Your task to perform on an android device: Go to Maps Image 0: 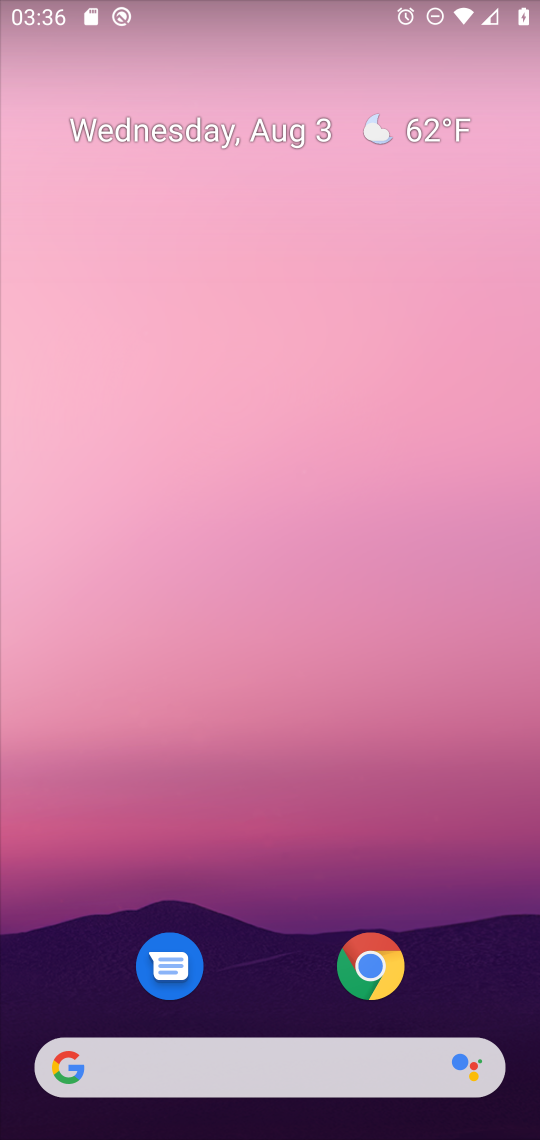
Step 0: drag from (278, 957) to (281, 358)
Your task to perform on an android device: Go to Maps Image 1: 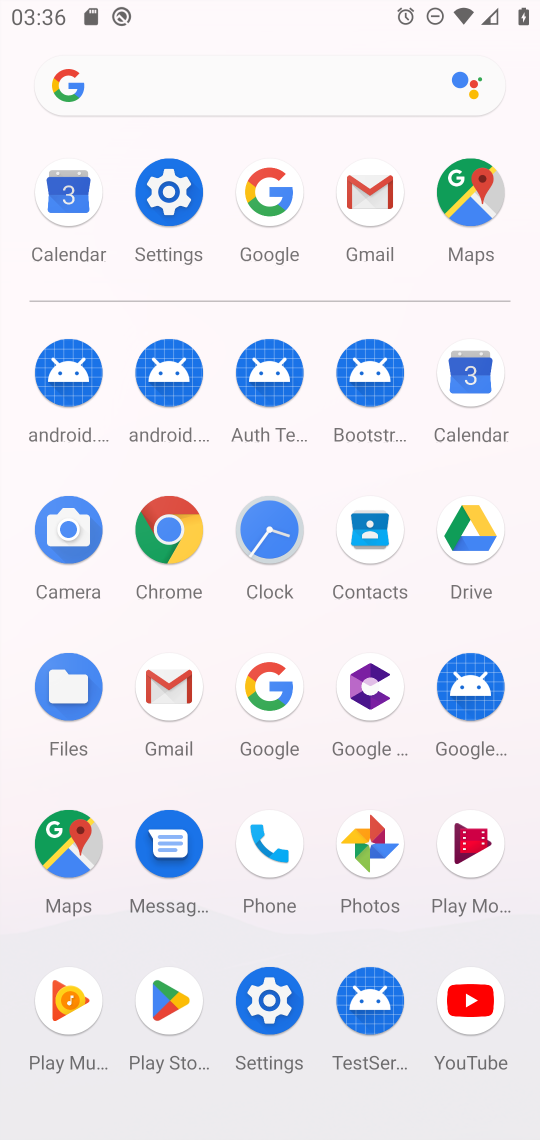
Step 1: click (447, 215)
Your task to perform on an android device: Go to Maps Image 2: 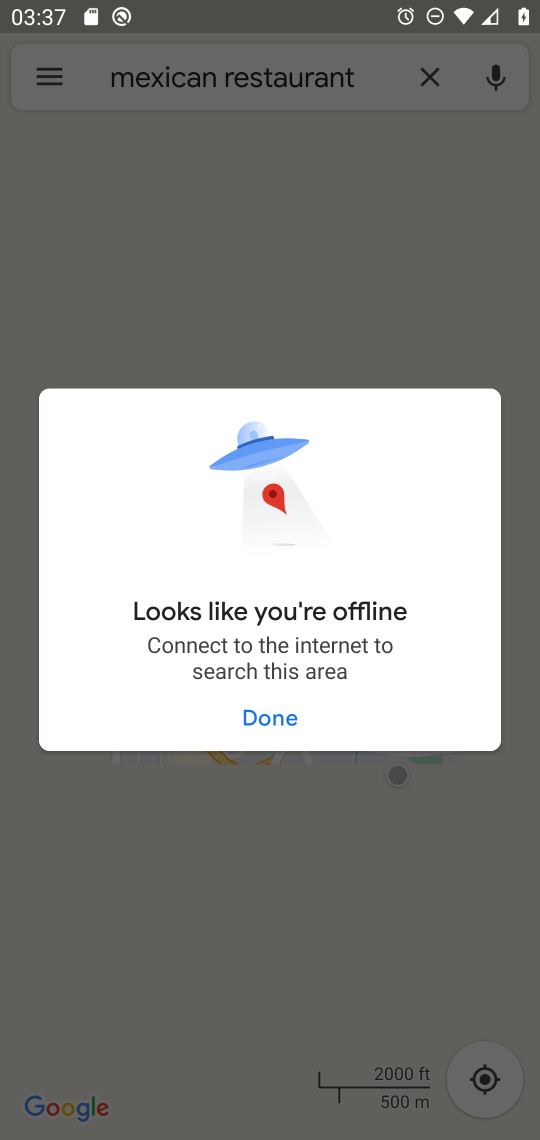
Step 2: task complete